Your task to perform on an android device: What's the weather today? Image 0: 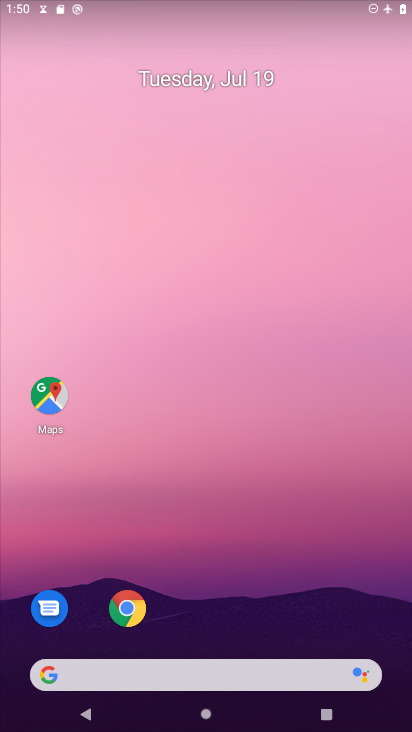
Step 0: drag from (300, 679) to (318, 1)
Your task to perform on an android device: What's the weather today? Image 1: 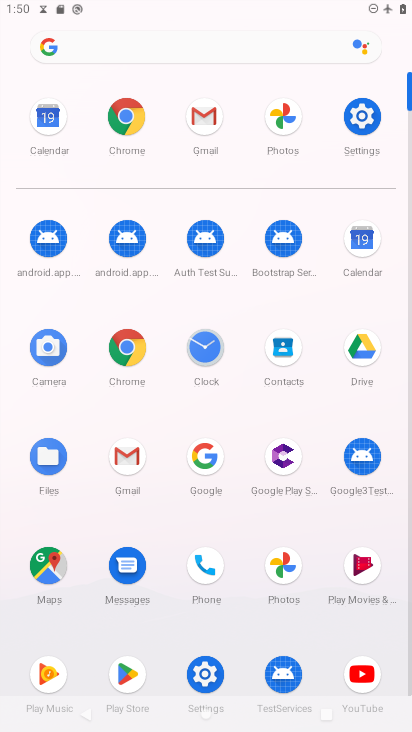
Step 1: click (132, 348)
Your task to perform on an android device: What's the weather today? Image 2: 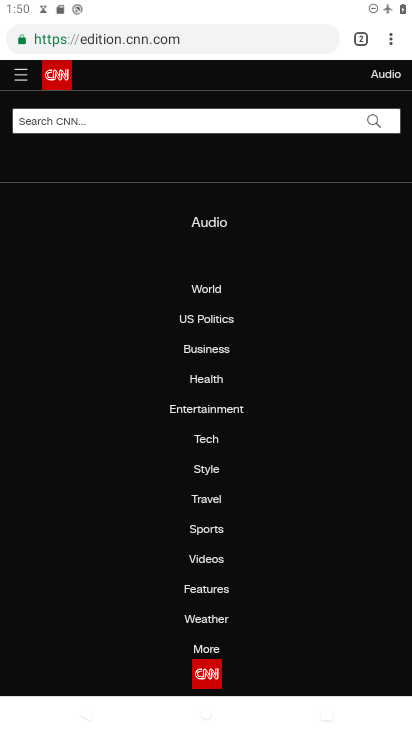
Step 2: click (226, 32)
Your task to perform on an android device: What's the weather today? Image 3: 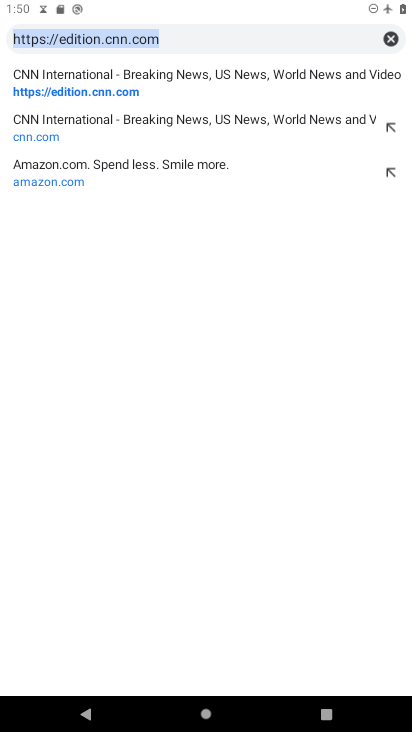
Step 3: type "weather today"
Your task to perform on an android device: What's the weather today? Image 4: 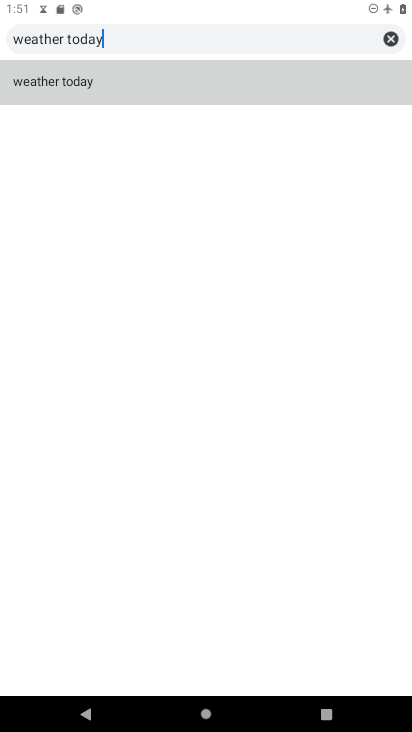
Step 4: click (82, 88)
Your task to perform on an android device: What's the weather today? Image 5: 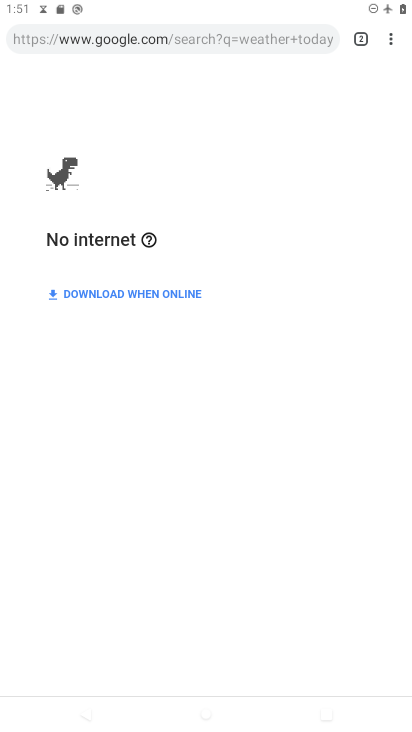
Step 5: task complete